Your task to perform on an android device: Search for the best-rated coffee table on Crate & Barrel Image 0: 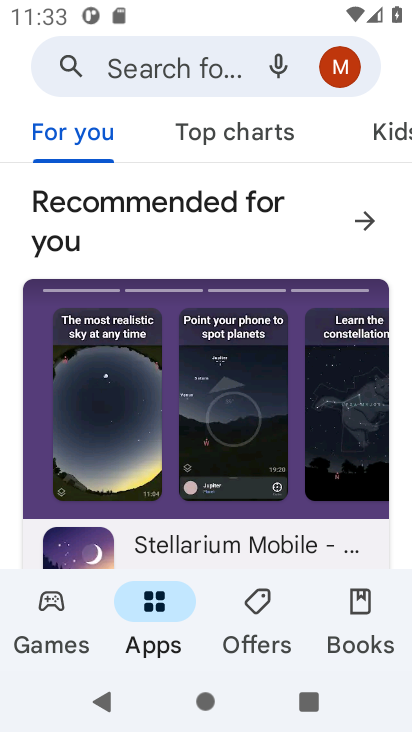
Step 0: press home button
Your task to perform on an android device: Search for the best-rated coffee table on Crate & Barrel Image 1: 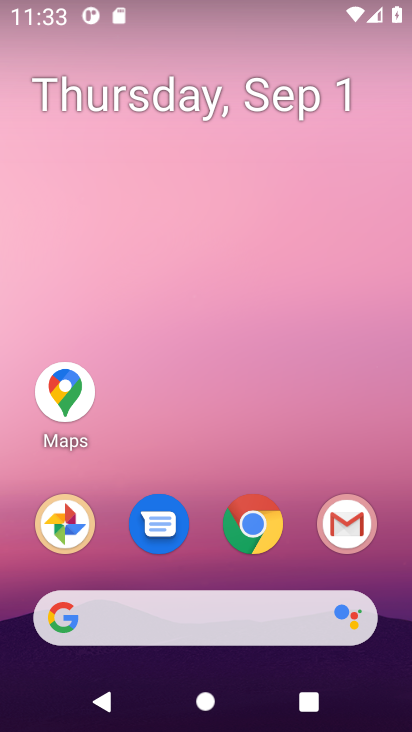
Step 1: click (283, 612)
Your task to perform on an android device: Search for the best-rated coffee table on Crate & Barrel Image 2: 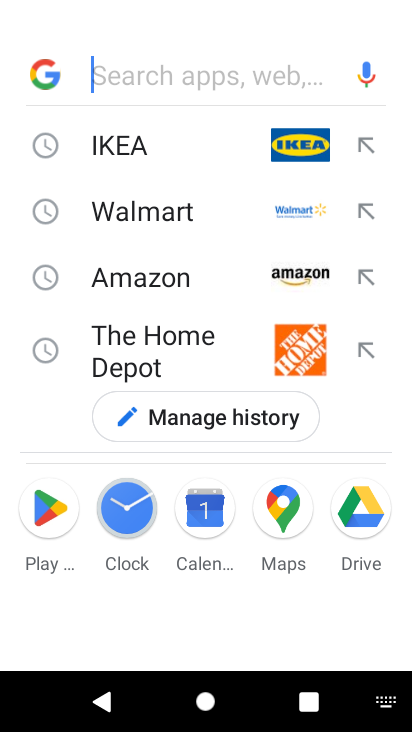
Step 2: press enter
Your task to perform on an android device: Search for the best-rated coffee table on Crate & Barrel Image 3: 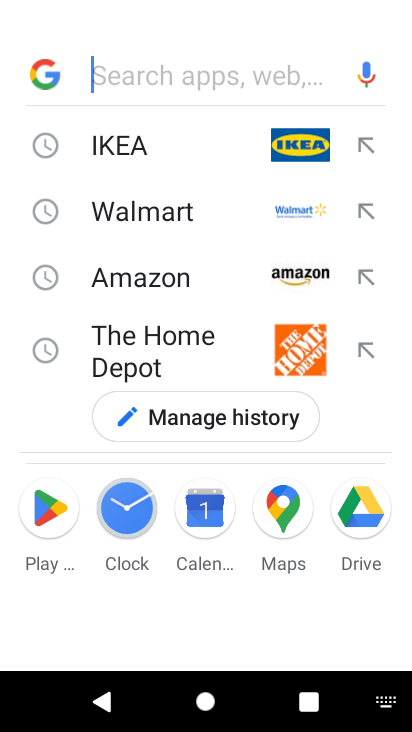
Step 3: type "crate barrel"
Your task to perform on an android device: Search for the best-rated coffee table on Crate & Barrel Image 4: 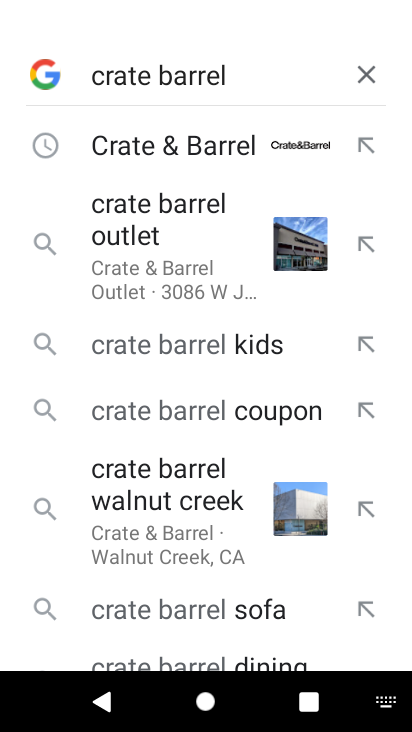
Step 4: click (152, 144)
Your task to perform on an android device: Search for the best-rated coffee table on Crate & Barrel Image 5: 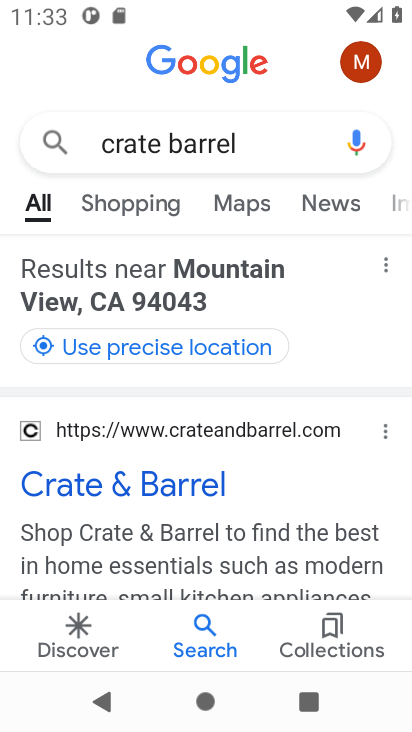
Step 5: click (154, 490)
Your task to perform on an android device: Search for the best-rated coffee table on Crate & Barrel Image 6: 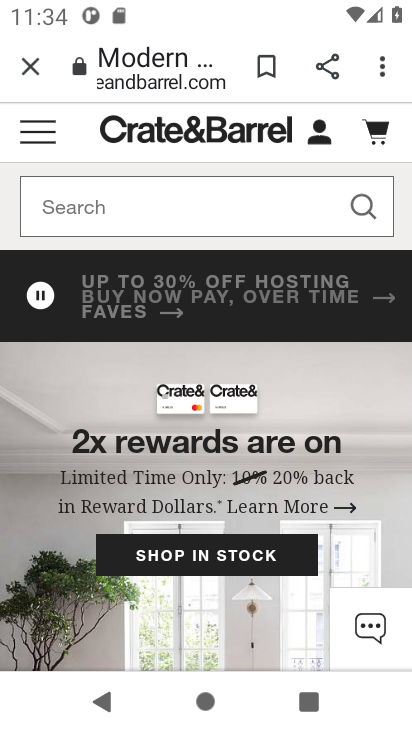
Step 6: click (155, 204)
Your task to perform on an android device: Search for the best-rated coffee table on Crate & Barrel Image 7: 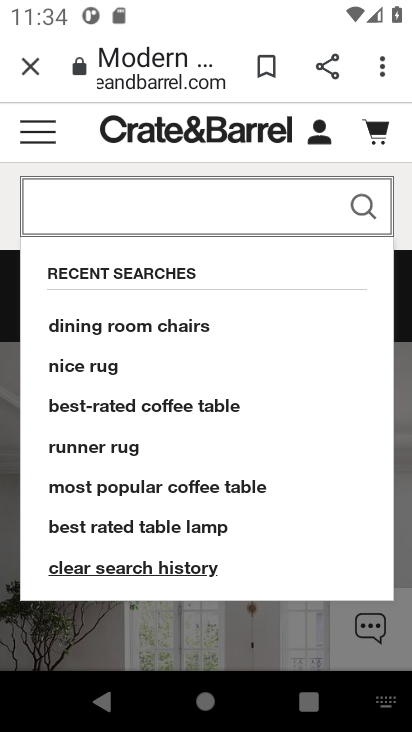
Step 7: type "best-rated coffee table"
Your task to perform on an android device: Search for the best-rated coffee table on Crate & Barrel Image 8: 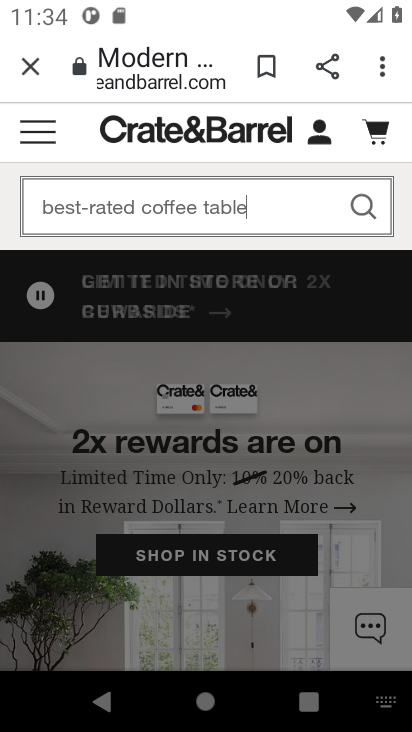
Step 8: press enter
Your task to perform on an android device: Search for the best-rated coffee table on Crate & Barrel Image 9: 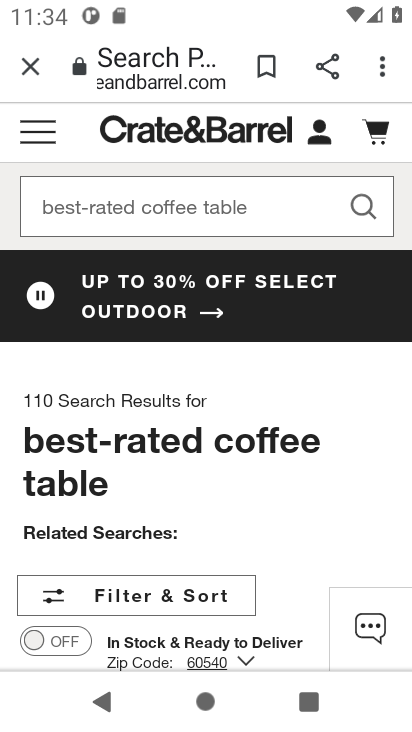
Step 9: task complete